Your task to perform on an android device: Search for Italian restaurants on Maps Image 0: 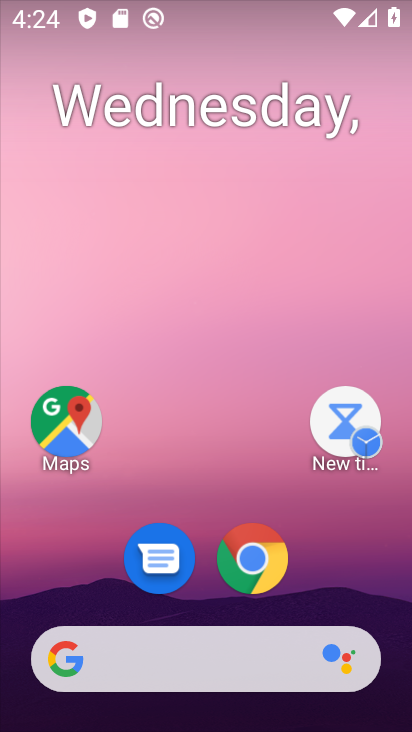
Step 0: drag from (318, 585) to (292, 235)
Your task to perform on an android device: Search for Italian restaurants on Maps Image 1: 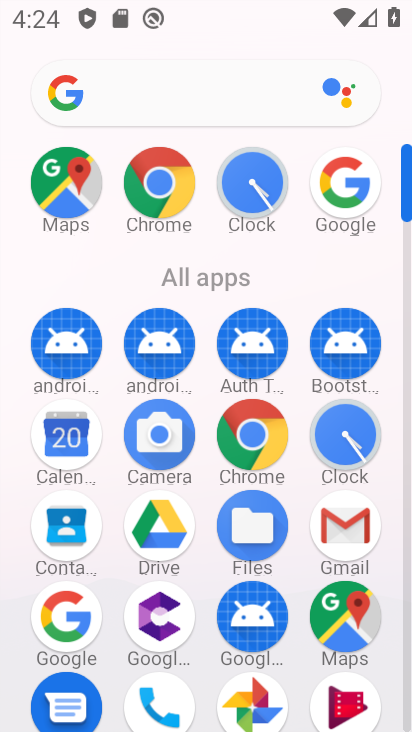
Step 1: click (338, 621)
Your task to perform on an android device: Search for Italian restaurants on Maps Image 2: 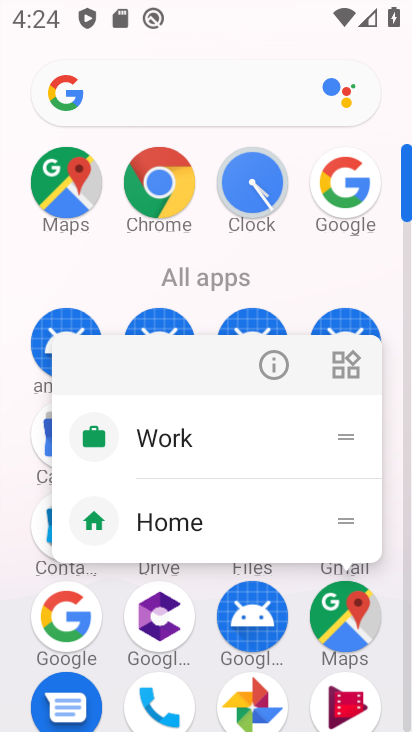
Step 2: click (335, 619)
Your task to perform on an android device: Search for Italian restaurants on Maps Image 3: 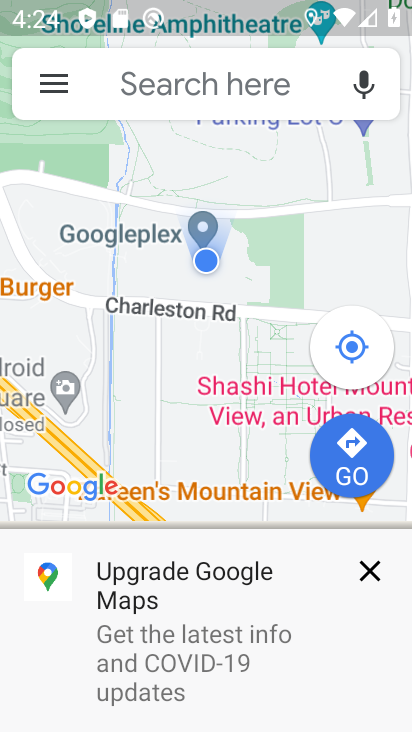
Step 3: click (197, 94)
Your task to perform on an android device: Search for Italian restaurants on Maps Image 4: 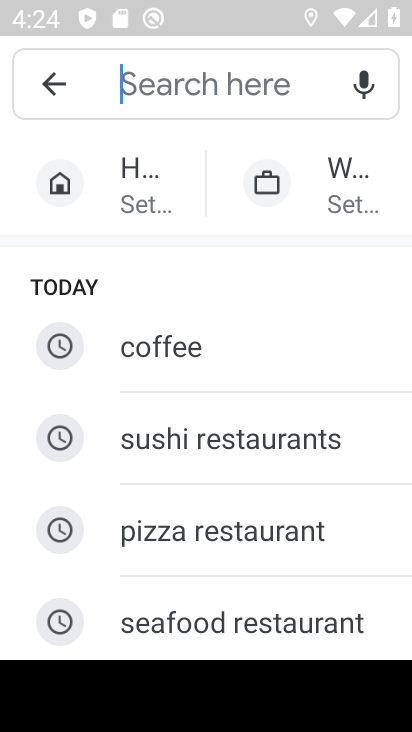
Step 4: type "italian restaurants"
Your task to perform on an android device: Search for Italian restaurants on Maps Image 5: 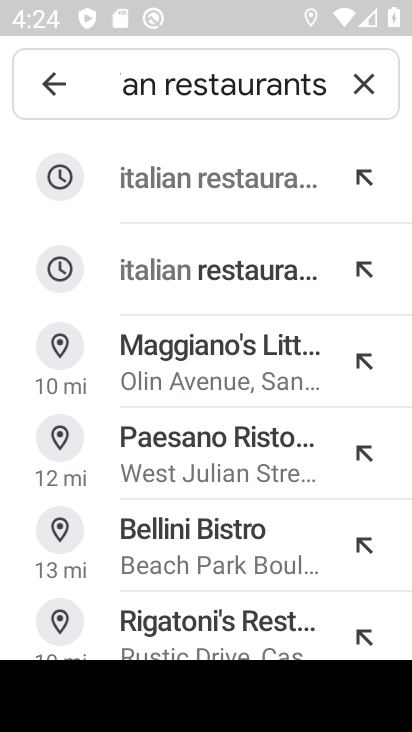
Step 5: click (225, 180)
Your task to perform on an android device: Search for Italian restaurants on Maps Image 6: 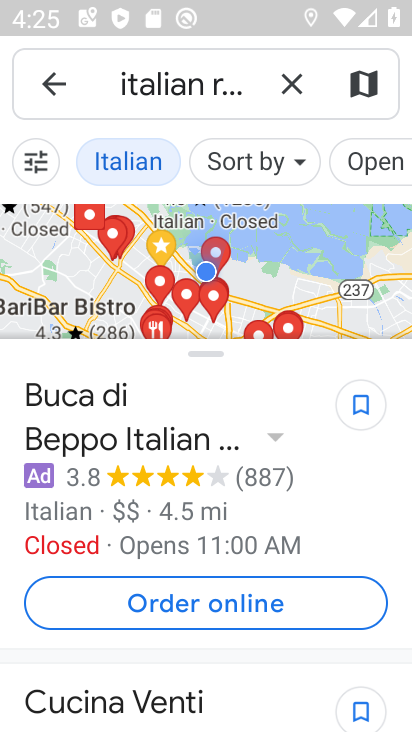
Step 6: task complete